Your task to perform on an android device: Is it going to rain today? Image 0: 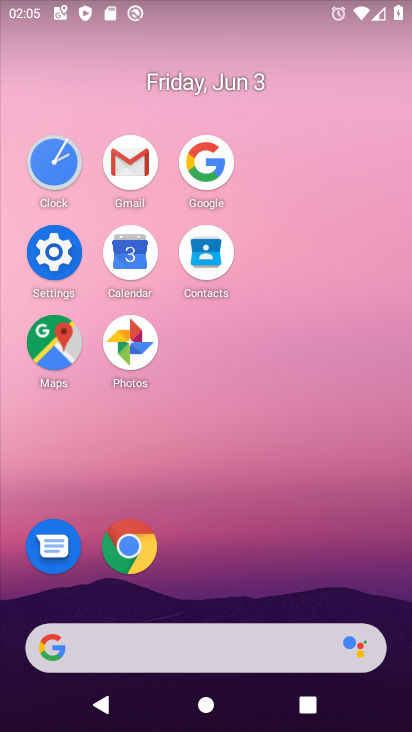
Step 0: click (215, 153)
Your task to perform on an android device: Is it going to rain today? Image 1: 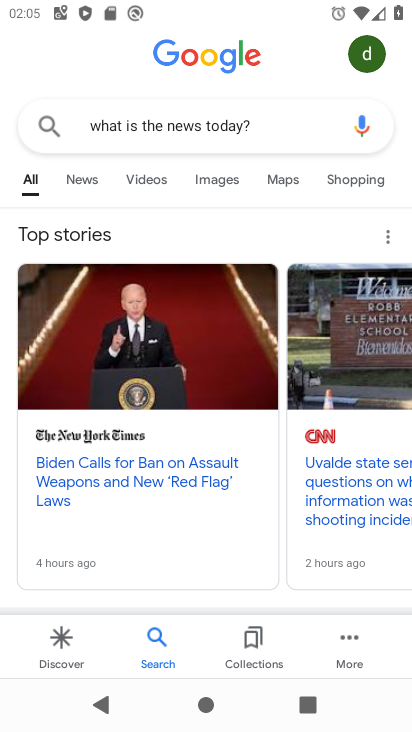
Step 1: click (312, 136)
Your task to perform on an android device: Is it going to rain today? Image 2: 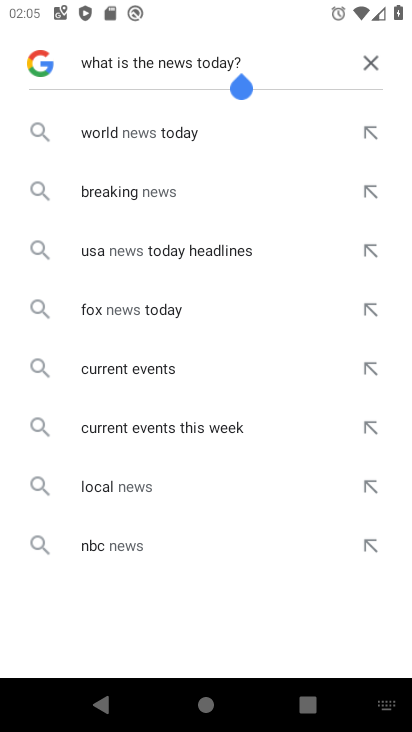
Step 2: click (369, 58)
Your task to perform on an android device: Is it going to rain today? Image 3: 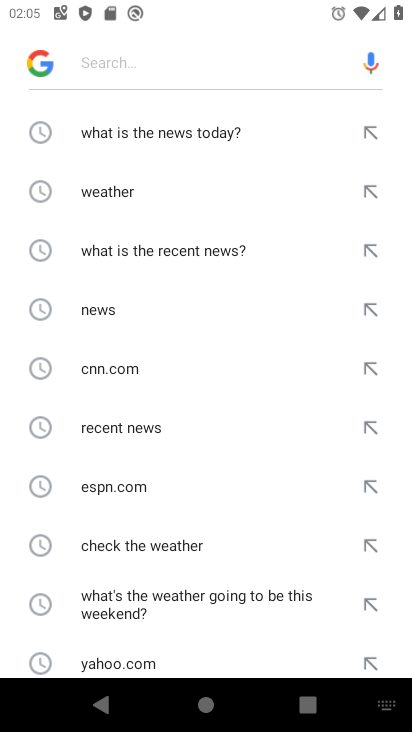
Step 3: click (130, 195)
Your task to perform on an android device: Is it going to rain today? Image 4: 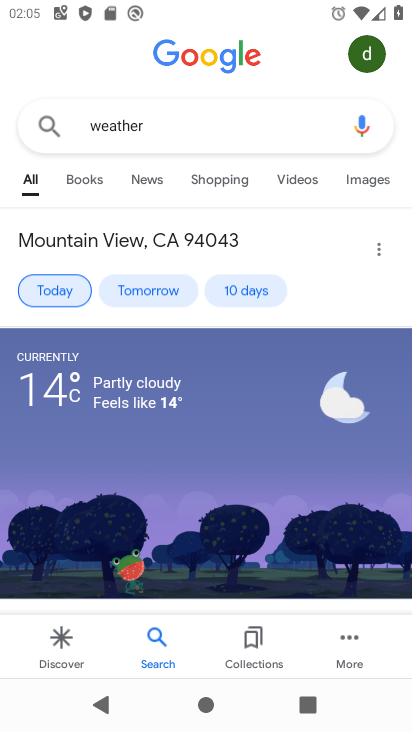
Step 4: task complete